Your task to perform on an android device: When is my next meeting? Image 0: 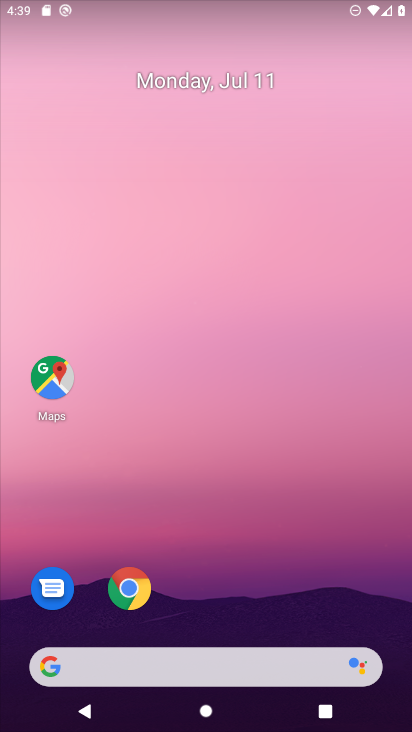
Step 0: press home button
Your task to perform on an android device: When is my next meeting? Image 1: 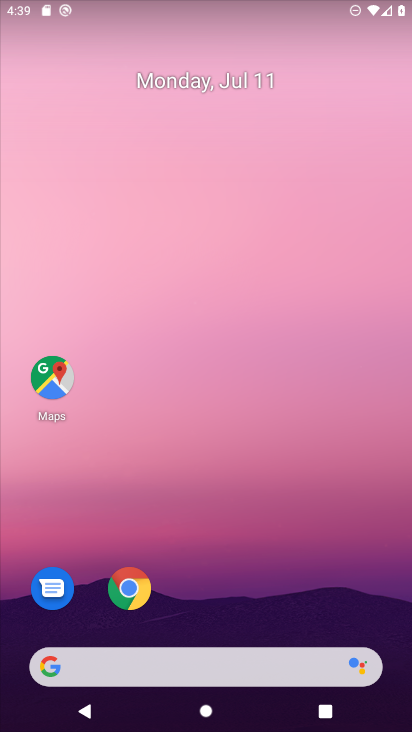
Step 1: drag from (236, 556) to (271, 165)
Your task to perform on an android device: When is my next meeting? Image 2: 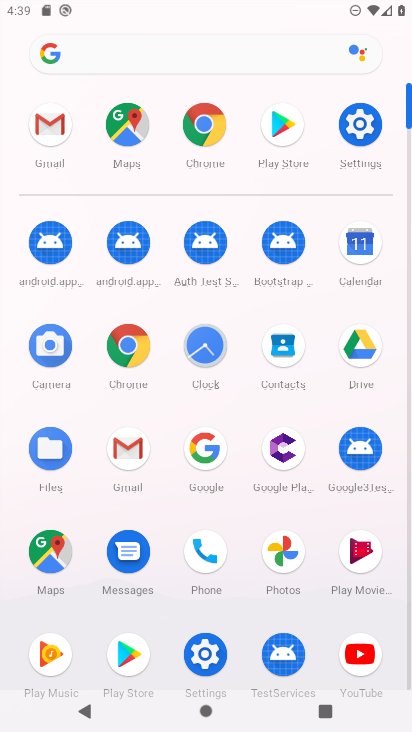
Step 2: click (357, 242)
Your task to perform on an android device: When is my next meeting? Image 3: 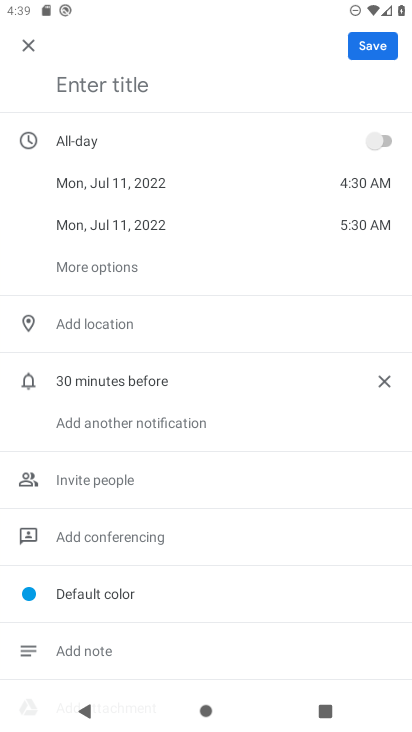
Step 3: click (35, 48)
Your task to perform on an android device: When is my next meeting? Image 4: 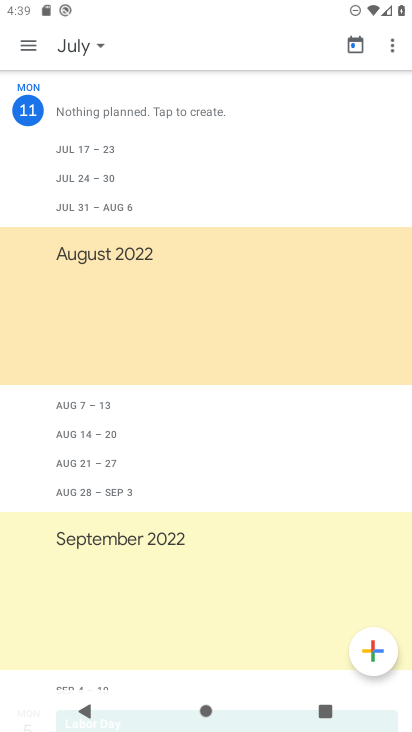
Step 4: click (35, 48)
Your task to perform on an android device: When is my next meeting? Image 5: 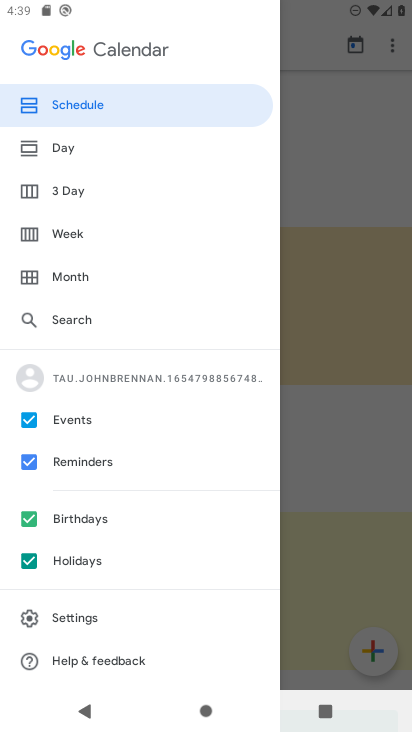
Step 5: click (78, 111)
Your task to perform on an android device: When is my next meeting? Image 6: 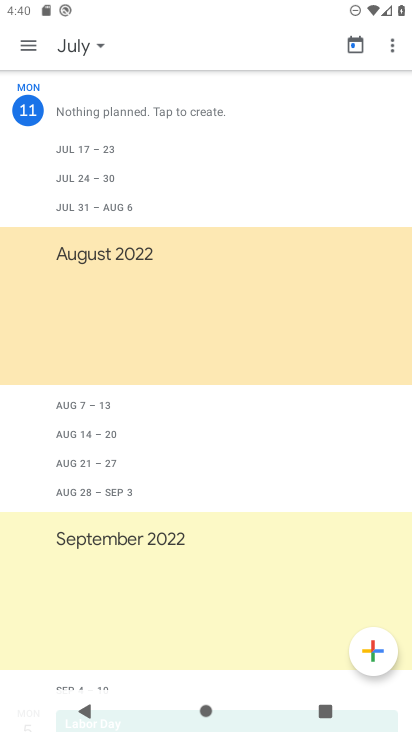
Step 6: task complete